Your task to perform on an android device: open sync settings in chrome Image 0: 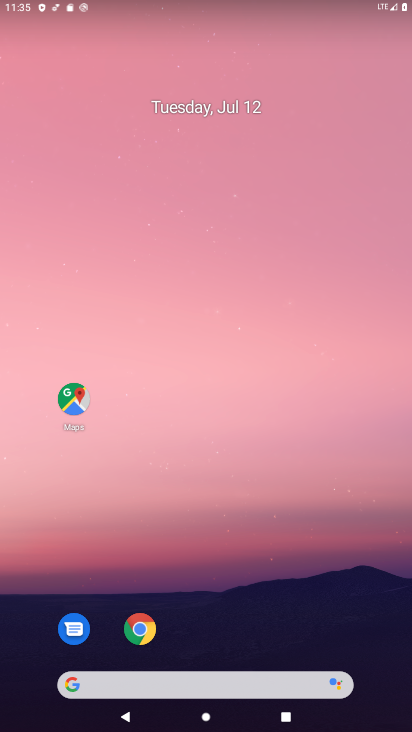
Step 0: click (141, 632)
Your task to perform on an android device: open sync settings in chrome Image 1: 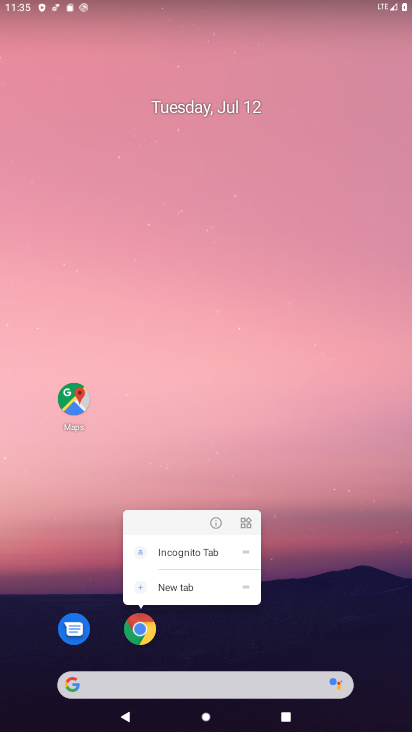
Step 1: click (146, 629)
Your task to perform on an android device: open sync settings in chrome Image 2: 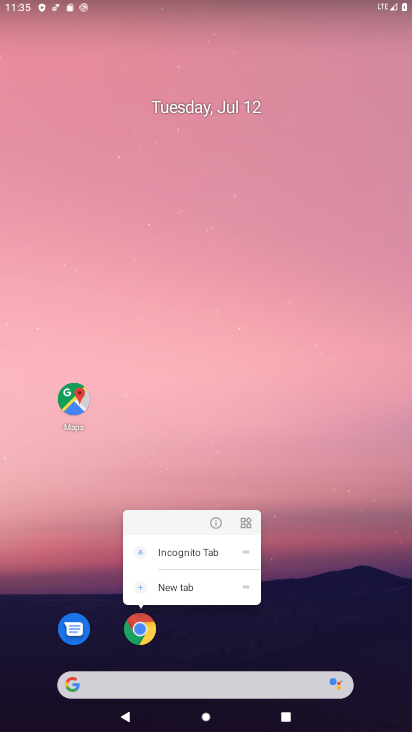
Step 2: click (135, 633)
Your task to perform on an android device: open sync settings in chrome Image 3: 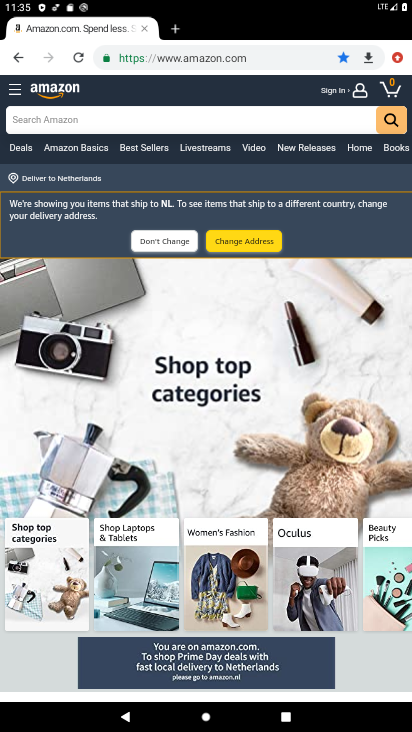
Step 3: drag from (400, 59) to (276, 424)
Your task to perform on an android device: open sync settings in chrome Image 4: 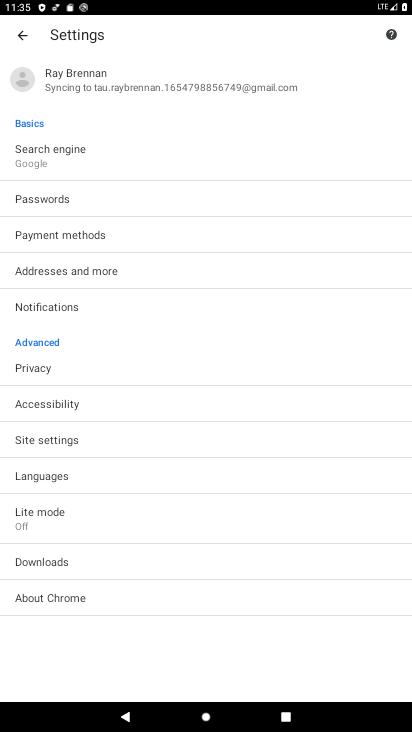
Step 4: click (189, 89)
Your task to perform on an android device: open sync settings in chrome Image 5: 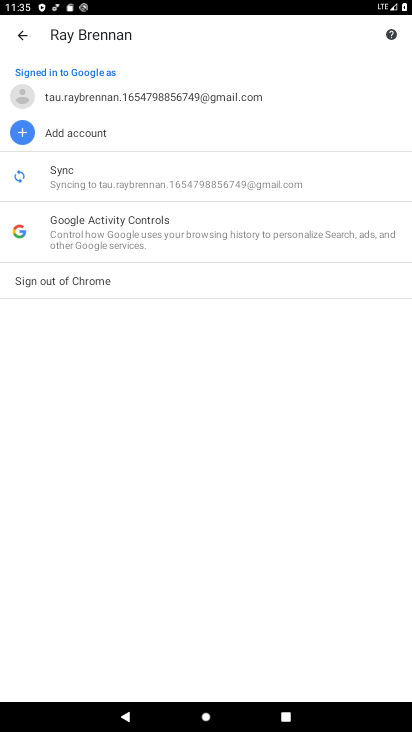
Step 5: click (150, 170)
Your task to perform on an android device: open sync settings in chrome Image 6: 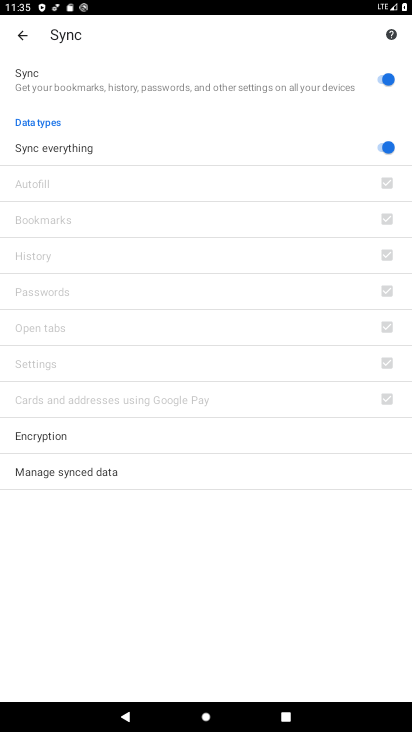
Step 6: task complete